Your task to perform on an android device: View the shopping cart on bestbuy.com. Image 0: 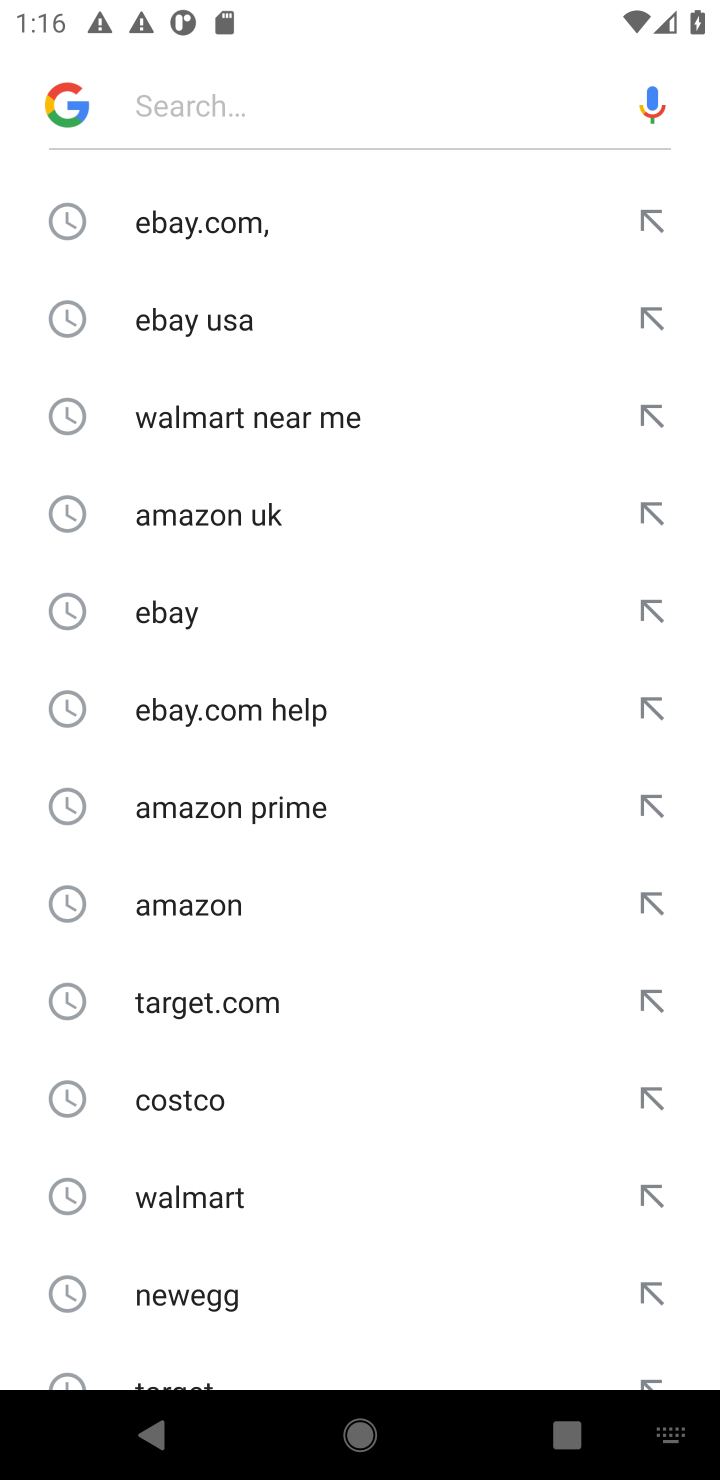
Step 0: press home button
Your task to perform on an android device: View the shopping cart on bestbuy.com. Image 1: 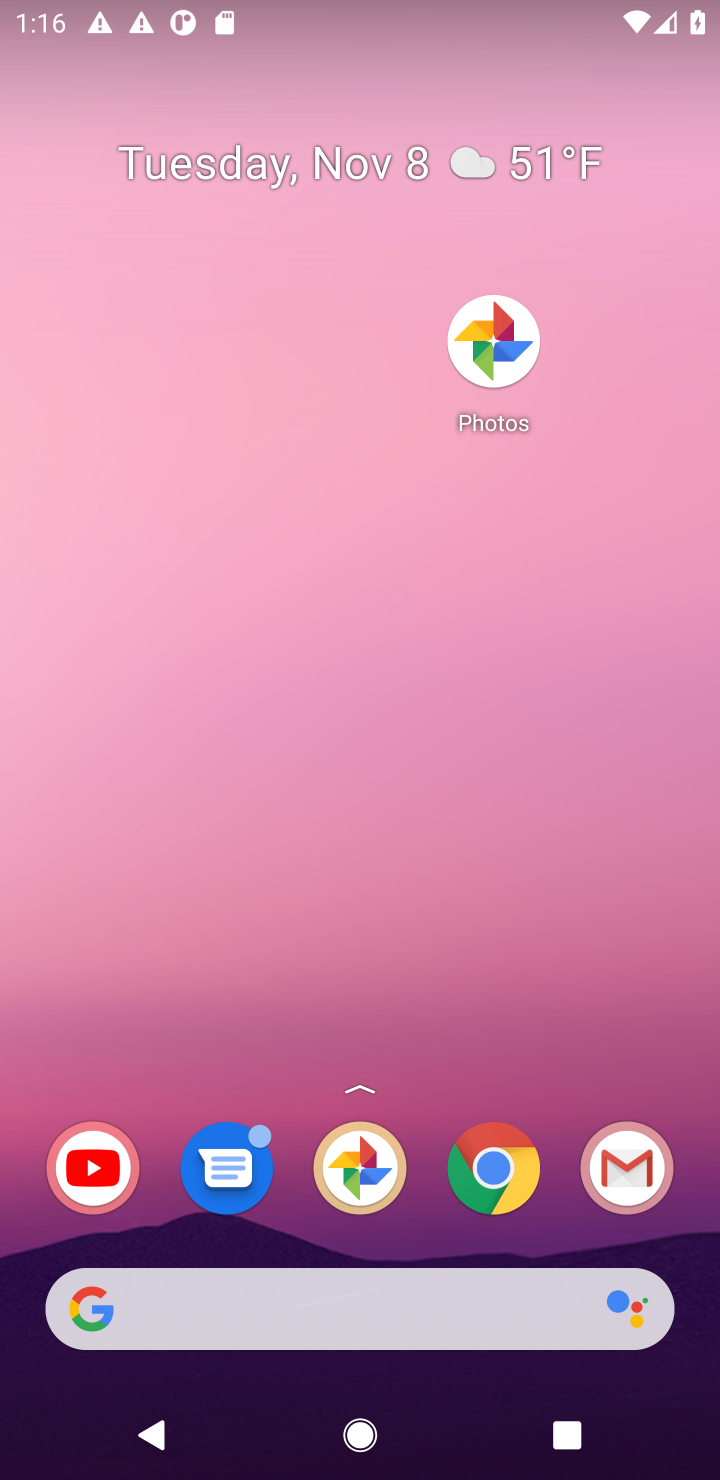
Step 1: drag from (272, 1146) to (168, 40)
Your task to perform on an android device: View the shopping cart on bestbuy.com. Image 2: 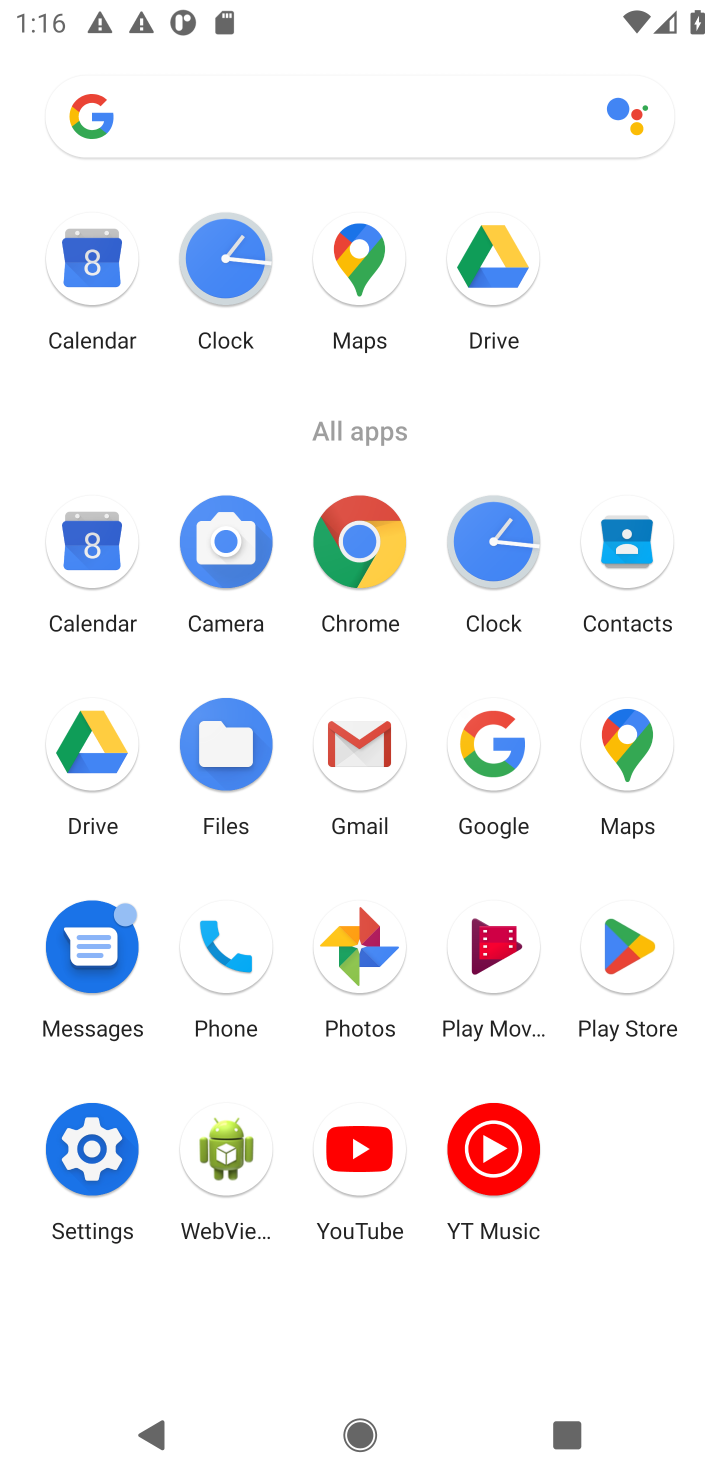
Step 2: click (383, 528)
Your task to perform on an android device: View the shopping cart on bestbuy.com. Image 3: 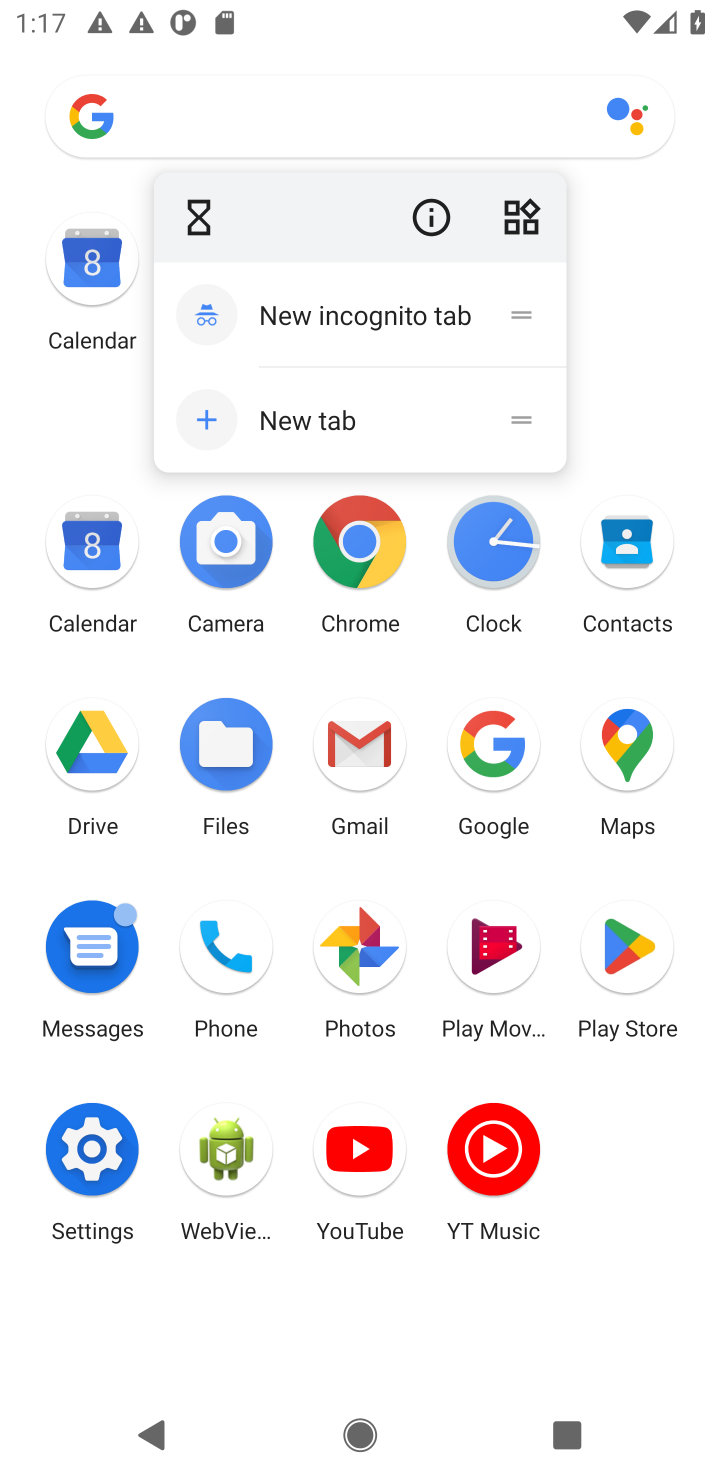
Step 3: click (374, 538)
Your task to perform on an android device: View the shopping cart on bestbuy.com. Image 4: 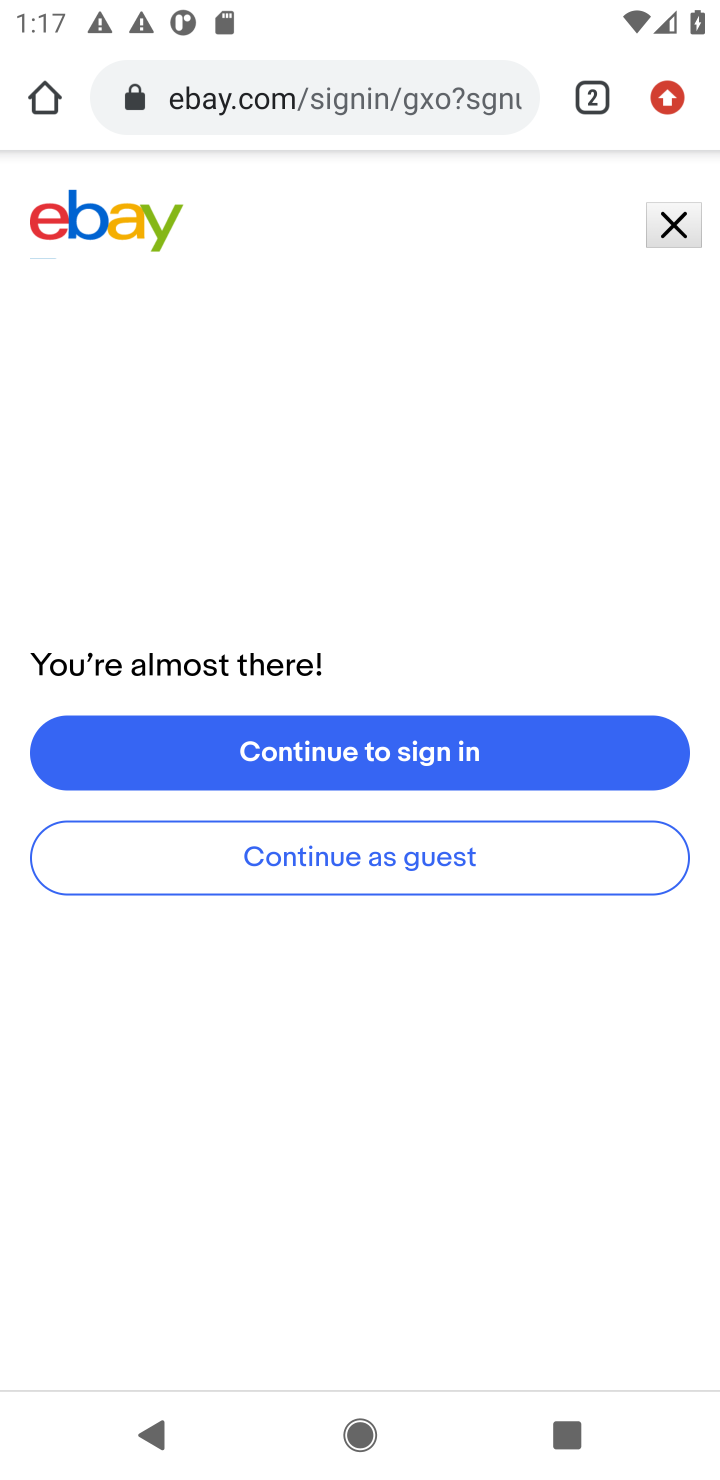
Step 4: click (220, 89)
Your task to perform on an android device: View the shopping cart on bestbuy.com. Image 5: 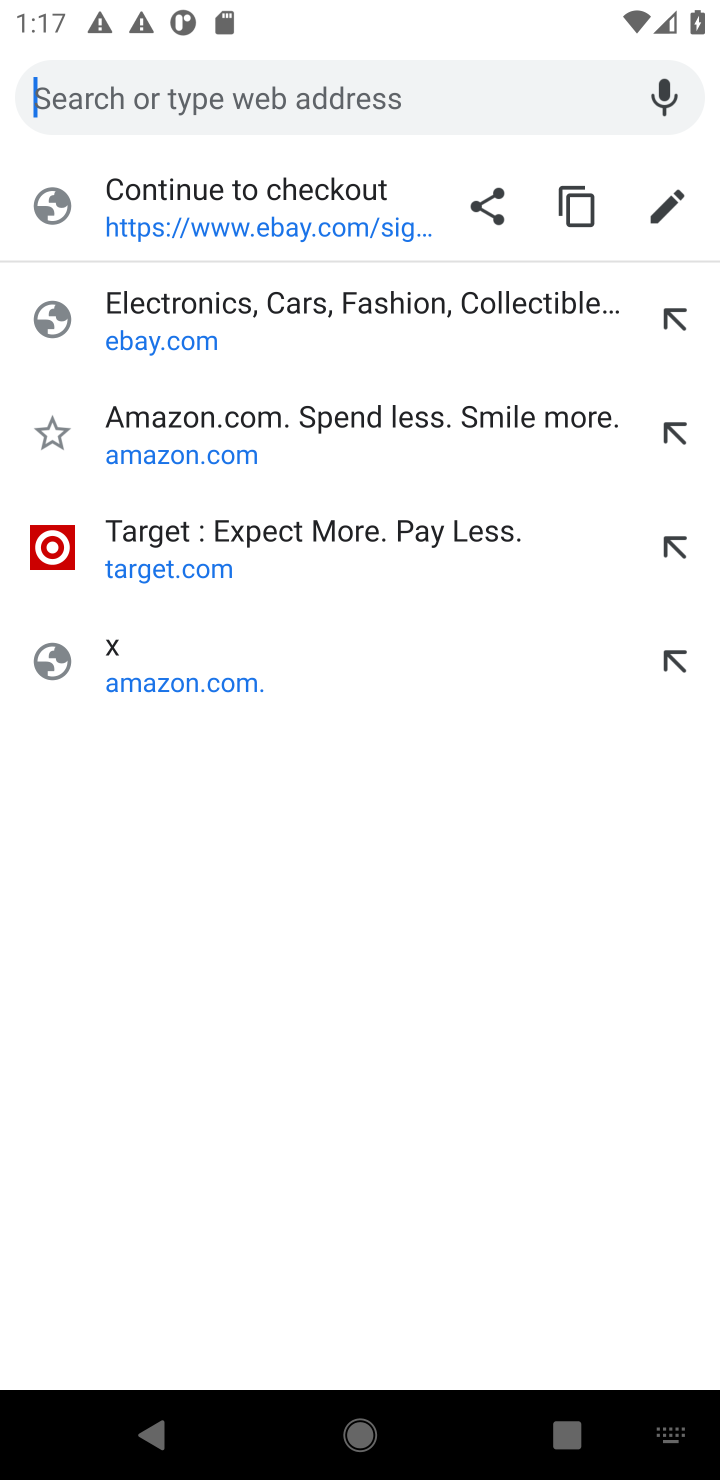
Step 5: type " bestbuy.com."
Your task to perform on an android device: View the shopping cart on bestbuy.com. Image 6: 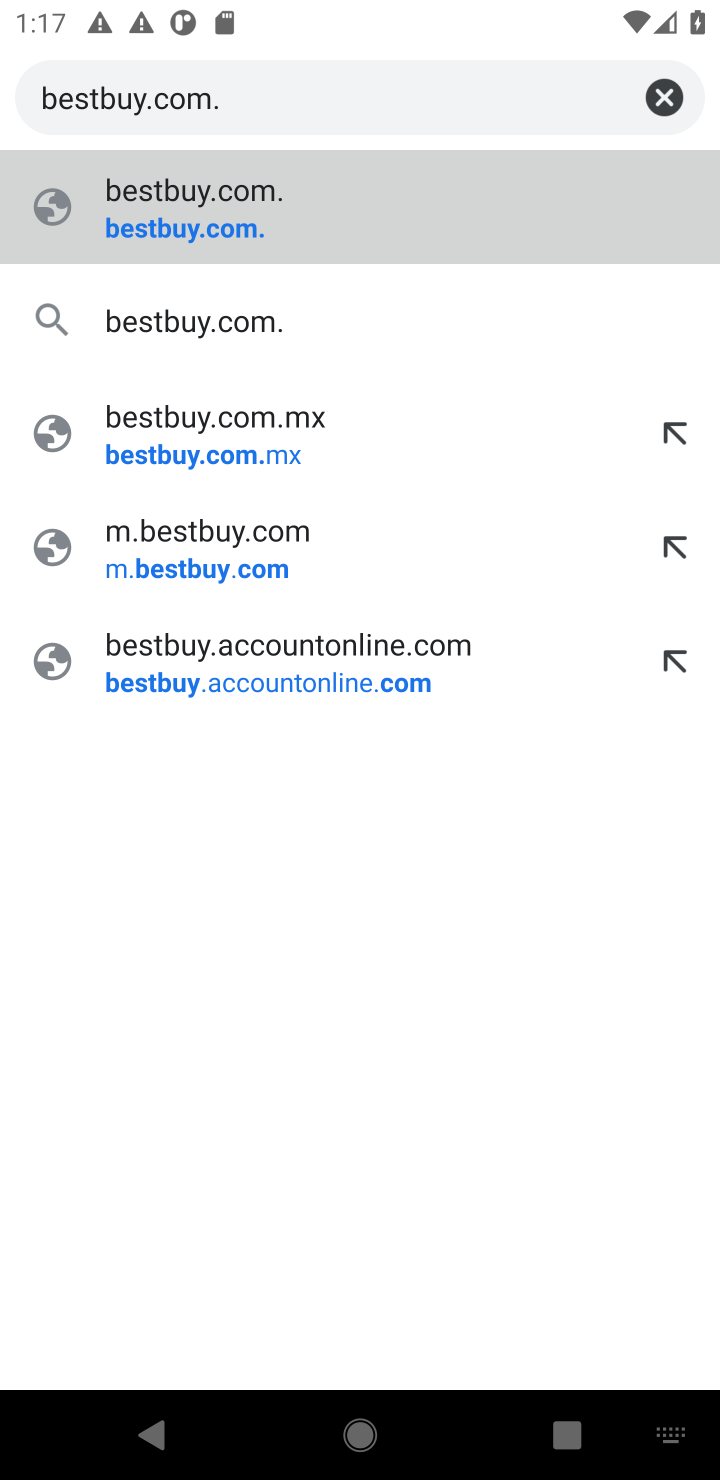
Step 6: press enter
Your task to perform on an android device: View the shopping cart on bestbuy.com. Image 7: 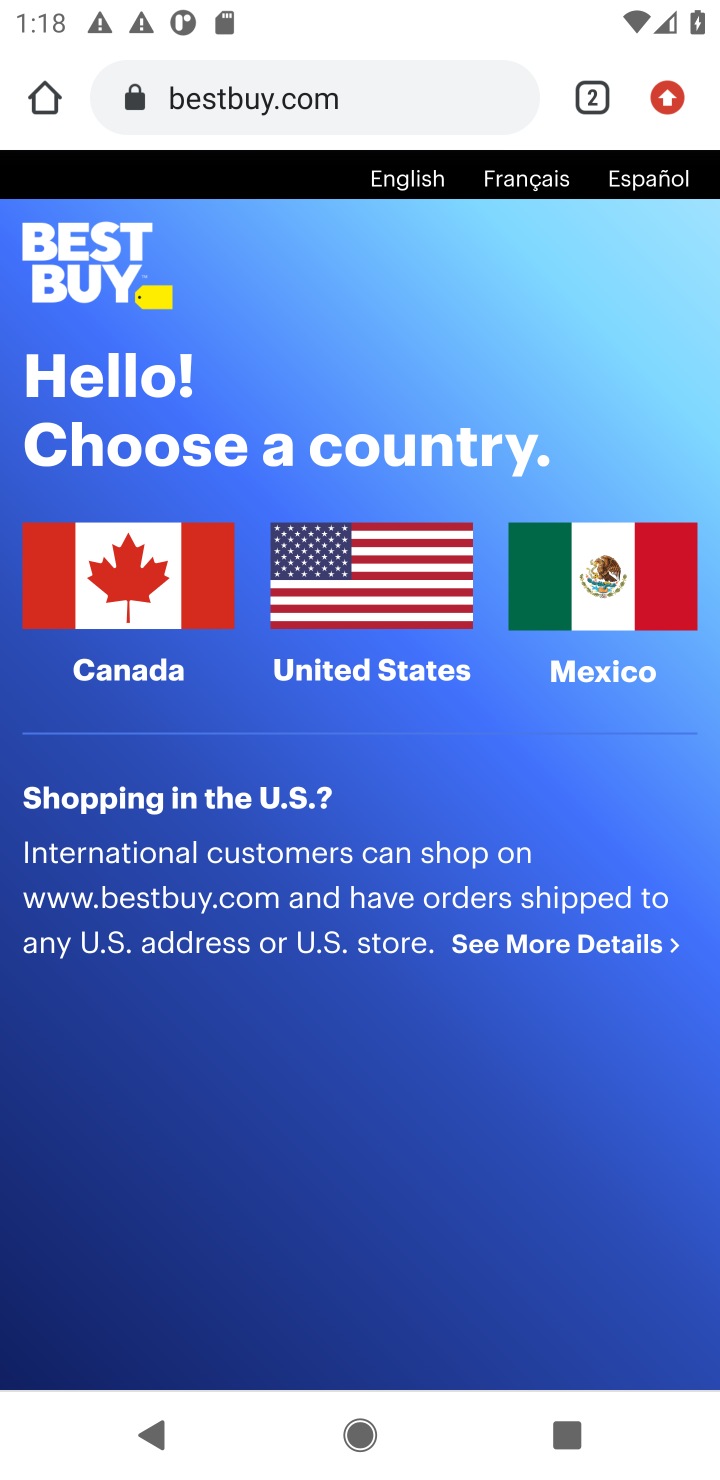
Step 7: click (77, 549)
Your task to perform on an android device: View the shopping cart on bestbuy.com. Image 8: 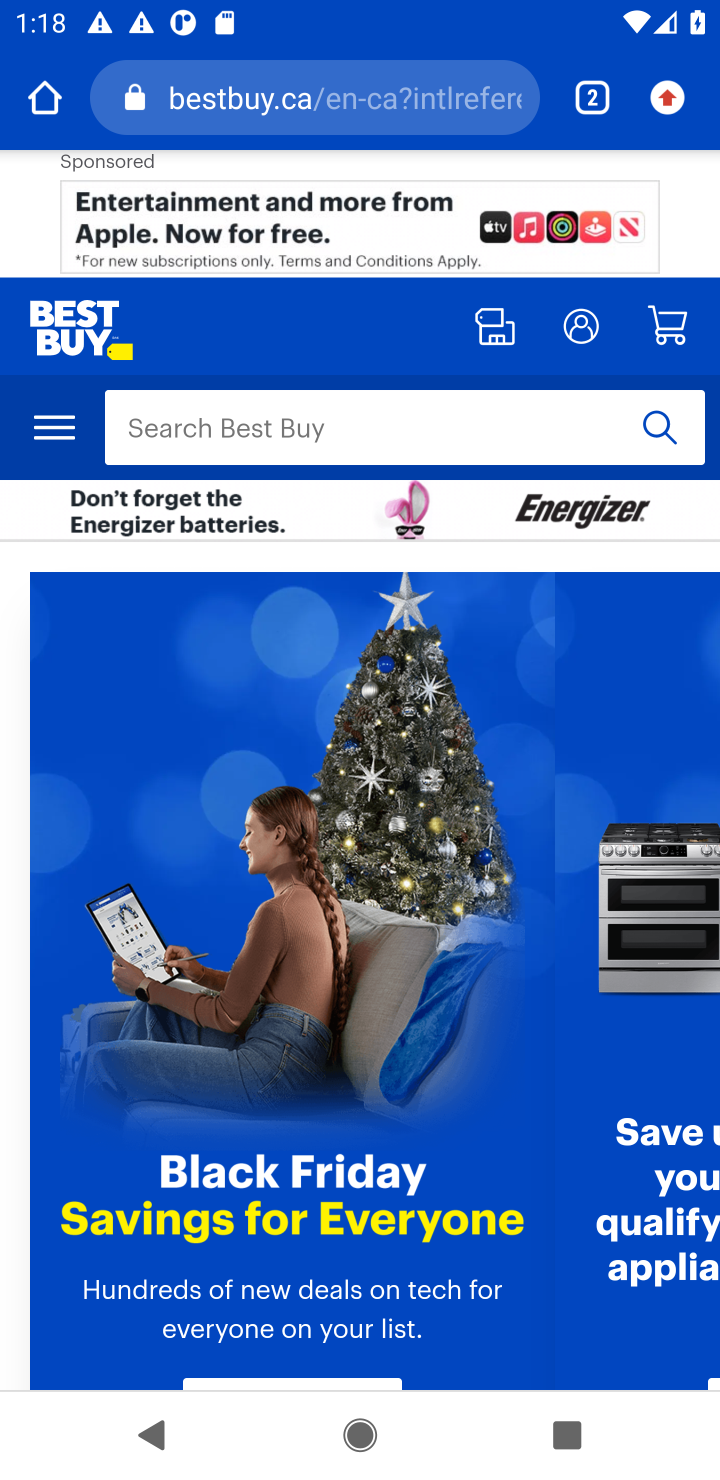
Step 8: click (686, 311)
Your task to perform on an android device: View the shopping cart on bestbuy.com. Image 9: 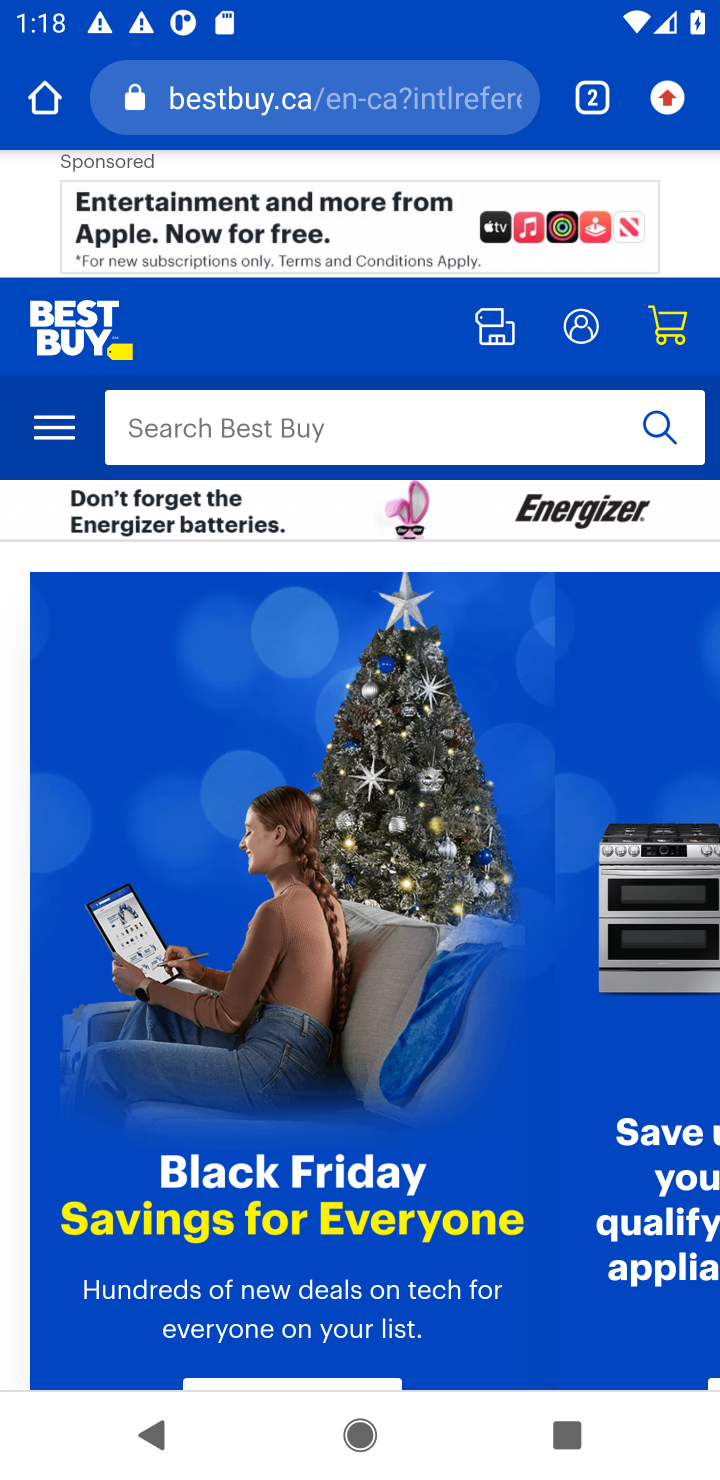
Step 9: task complete